Your task to perform on an android device: add a label to a message in the gmail app Image 0: 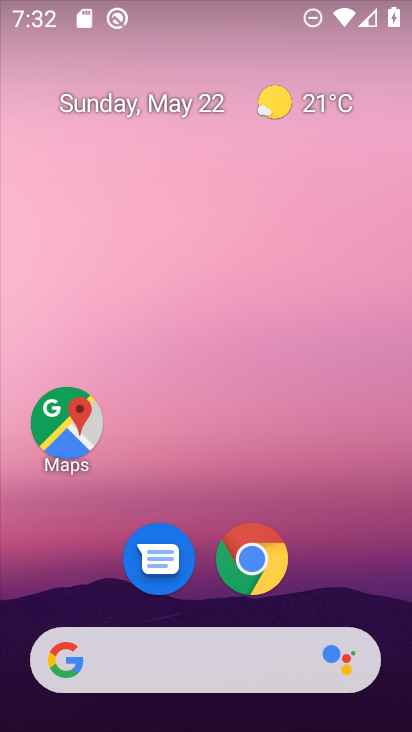
Step 0: drag from (291, 669) to (343, 226)
Your task to perform on an android device: add a label to a message in the gmail app Image 1: 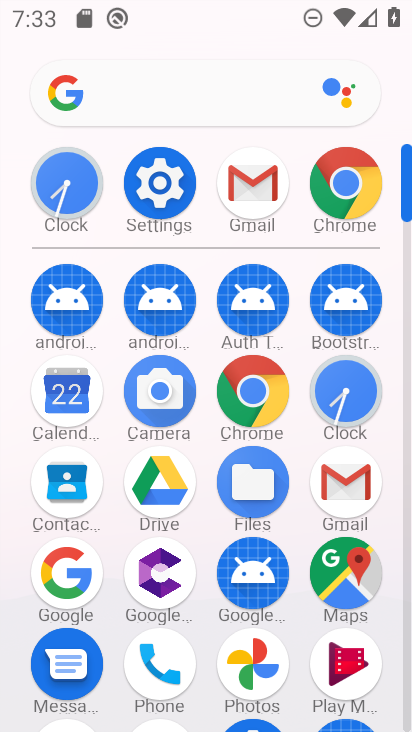
Step 1: click (344, 470)
Your task to perform on an android device: add a label to a message in the gmail app Image 2: 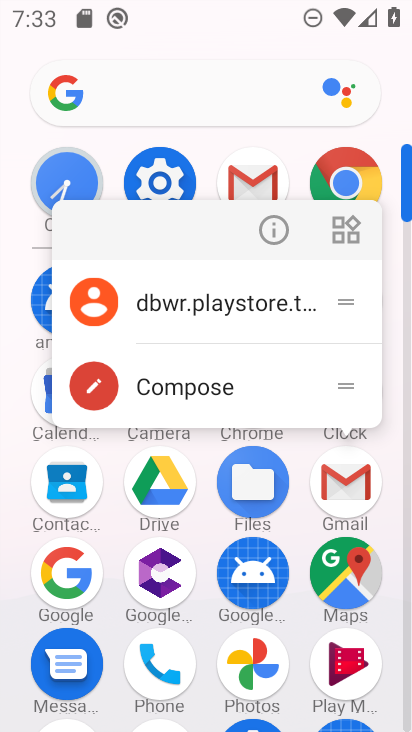
Step 2: click (338, 479)
Your task to perform on an android device: add a label to a message in the gmail app Image 3: 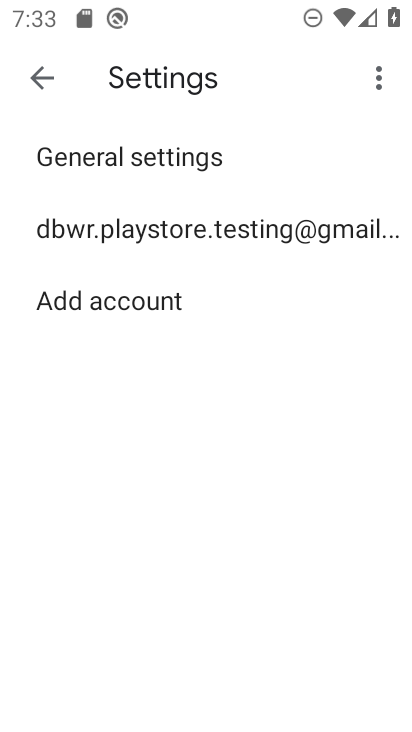
Step 3: click (158, 215)
Your task to perform on an android device: add a label to a message in the gmail app Image 4: 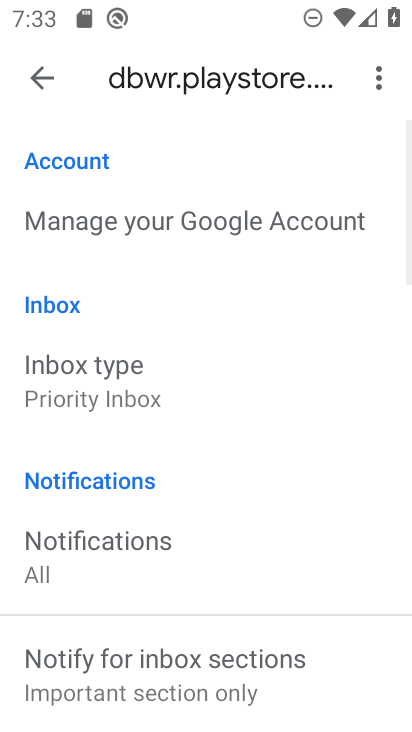
Step 4: drag from (177, 453) to (234, 126)
Your task to perform on an android device: add a label to a message in the gmail app Image 5: 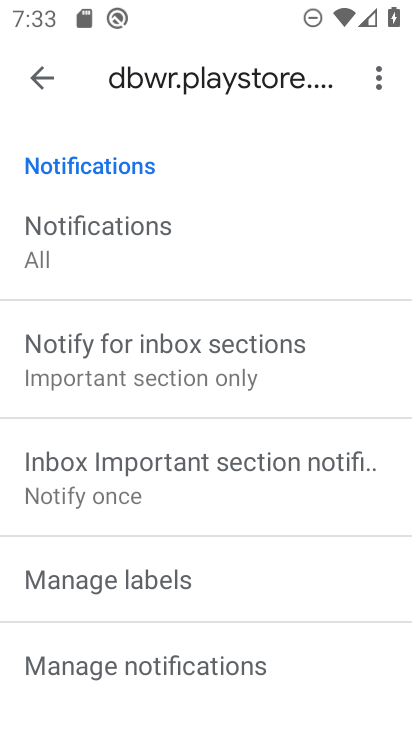
Step 5: click (165, 571)
Your task to perform on an android device: add a label to a message in the gmail app Image 6: 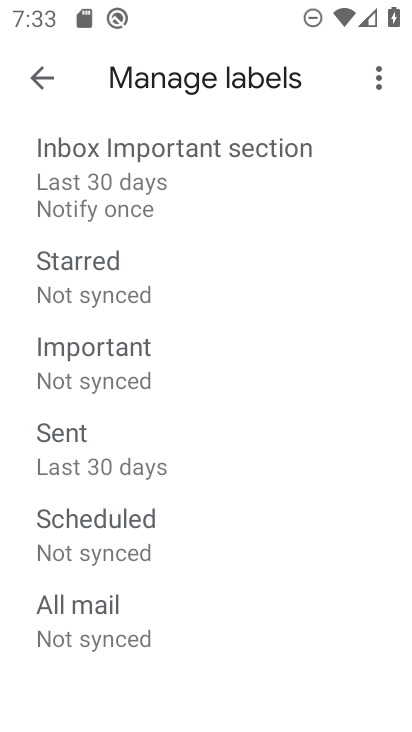
Step 6: click (157, 481)
Your task to perform on an android device: add a label to a message in the gmail app Image 7: 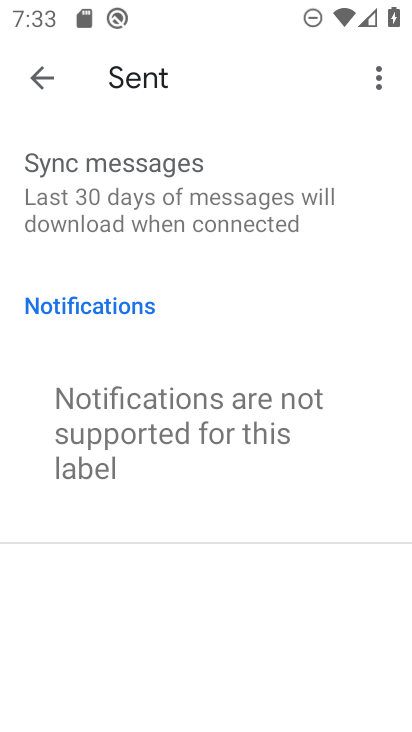
Step 7: task complete